Your task to perform on an android device: find photos in the google photos app Image 0: 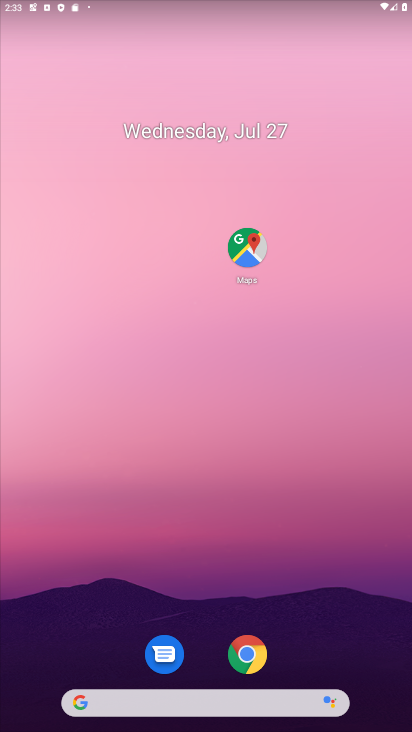
Step 0: drag from (16, 531) to (181, 158)
Your task to perform on an android device: find photos in the google photos app Image 1: 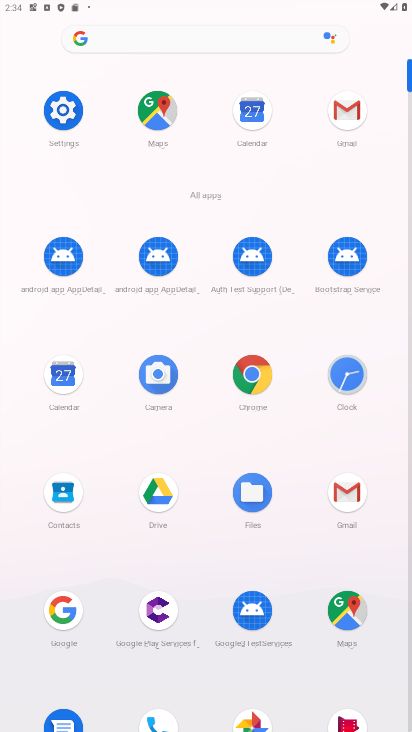
Step 1: click (247, 712)
Your task to perform on an android device: find photos in the google photos app Image 2: 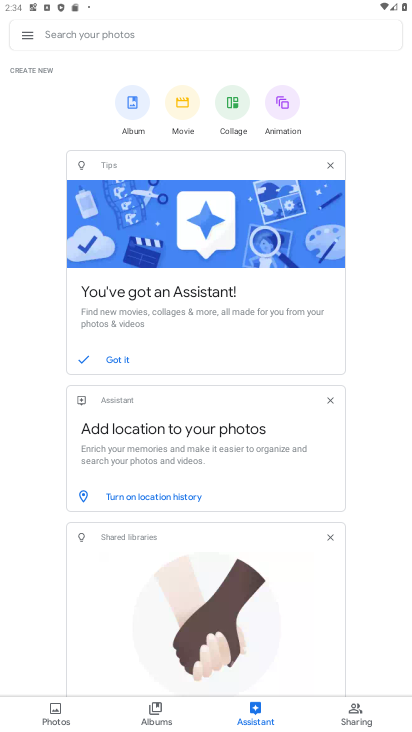
Step 2: click (42, 716)
Your task to perform on an android device: find photos in the google photos app Image 3: 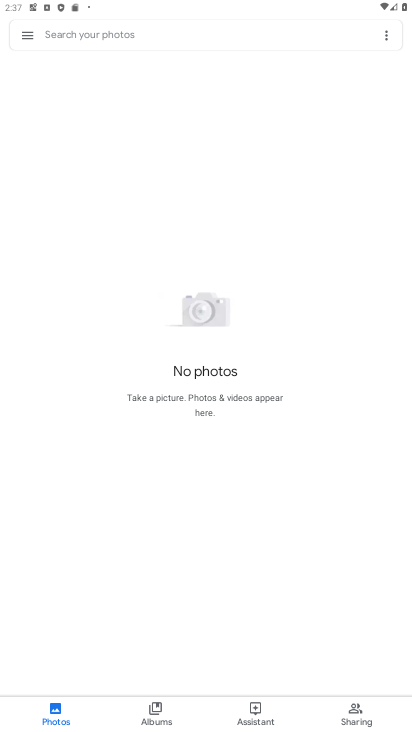
Step 3: task complete